Your task to perform on an android device: Search for seafood restaurants on Google Maps Image 0: 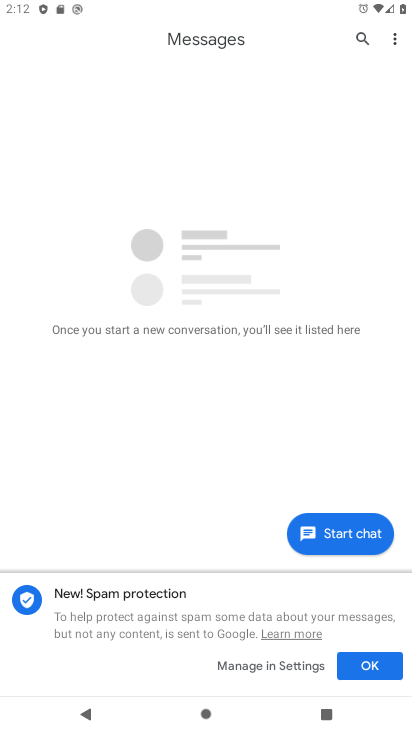
Step 0: press home button
Your task to perform on an android device: Search for seafood restaurants on Google Maps Image 1: 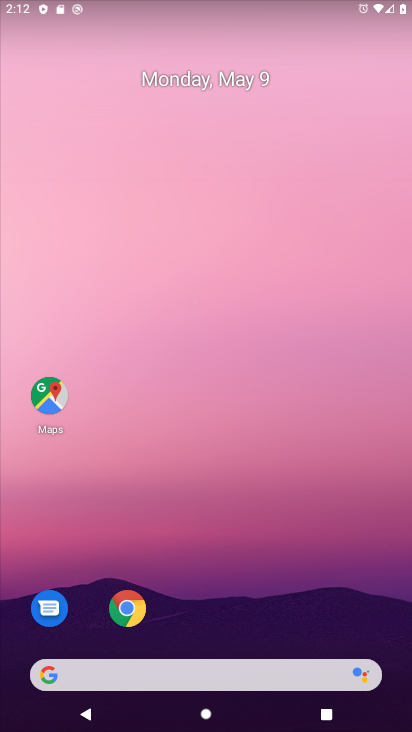
Step 1: click (53, 409)
Your task to perform on an android device: Search for seafood restaurants on Google Maps Image 2: 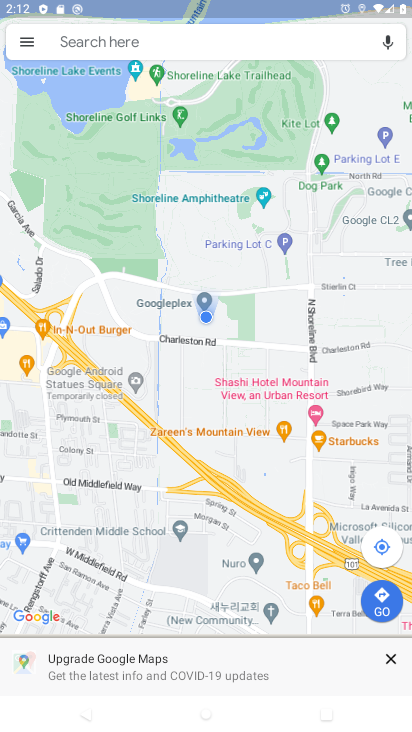
Step 2: click (123, 42)
Your task to perform on an android device: Search for seafood restaurants on Google Maps Image 3: 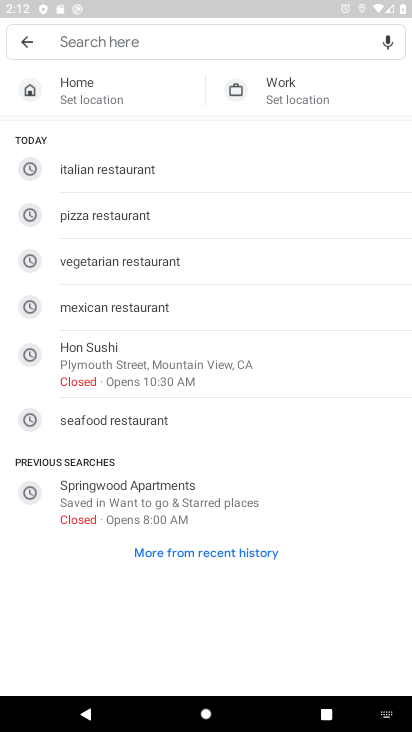
Step 3: click (159, 426)
Your task to perform on an android device: Search for seafood restaurants on Google Maps Image 4: 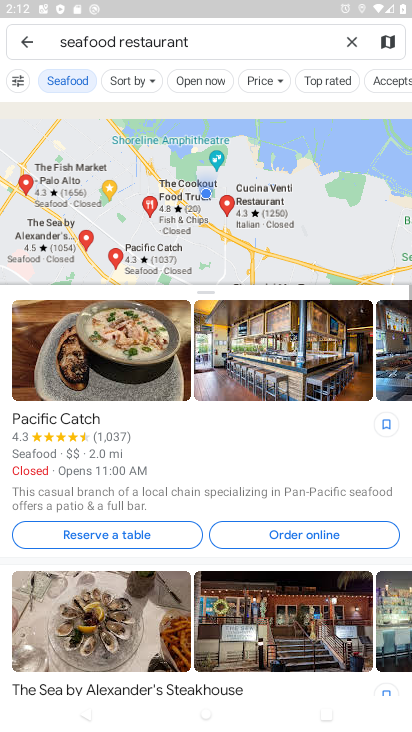
Step 4: task complete